Your task to perform on an android device: turn notification dots off Image 0: 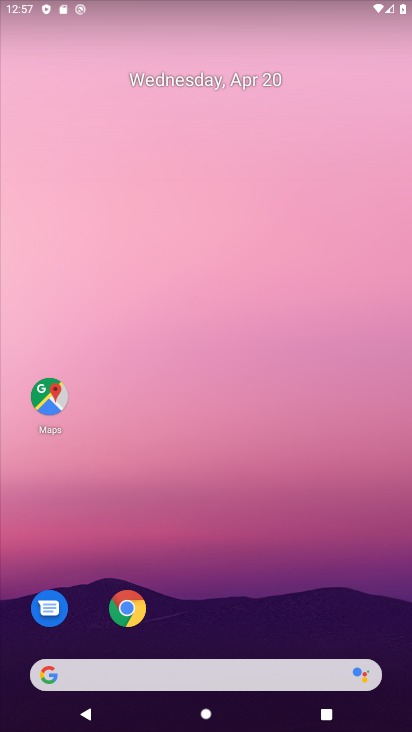
Step 0: drag from (363, 605) to (260, 227)
Your task to perform on an android device: turn notification dots off Image 1: 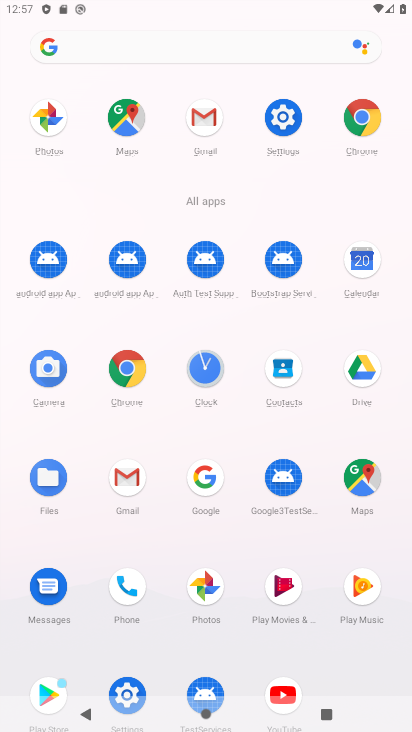
Step 1: click (280, 137)
Your task to perform on an android device: turn notification dots off Image 2: 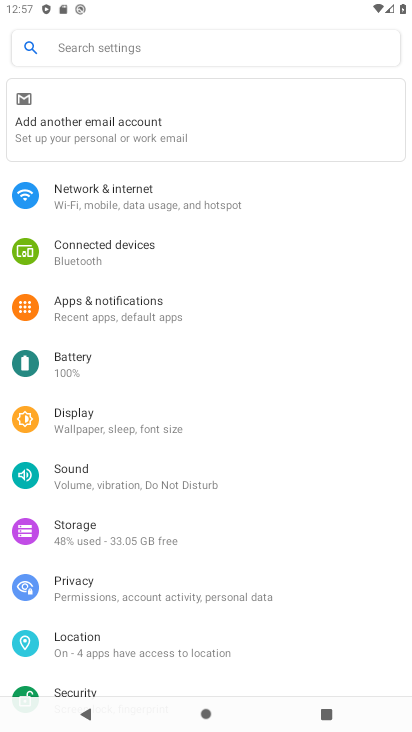
Step 2: click (217, 321)
Your task to perform on an android device: turn notification dots off Image 3: 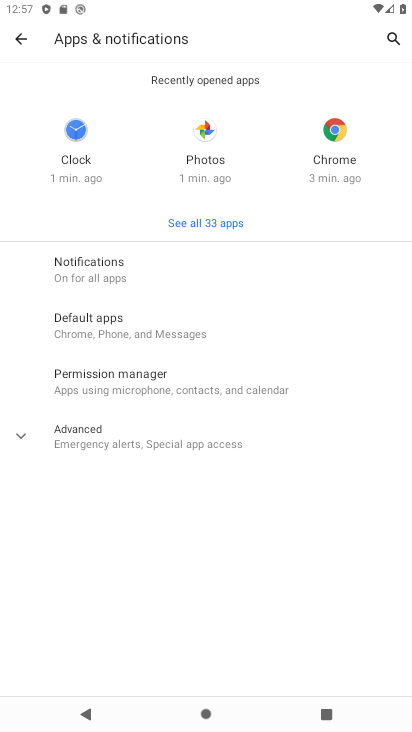
Step 3: click (201, 268)
Your task to perform on an android device: turn notification dots off Image 4: 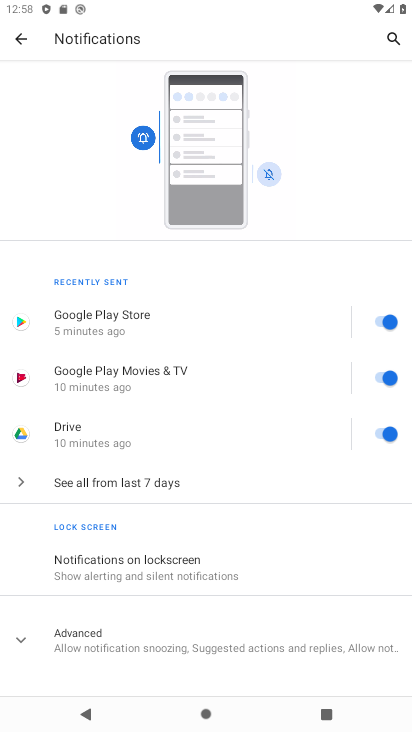
Step 4: drag from (228, 538) to (178, 349)
Your task to perform on an android device: turn notification dots off Image 5: 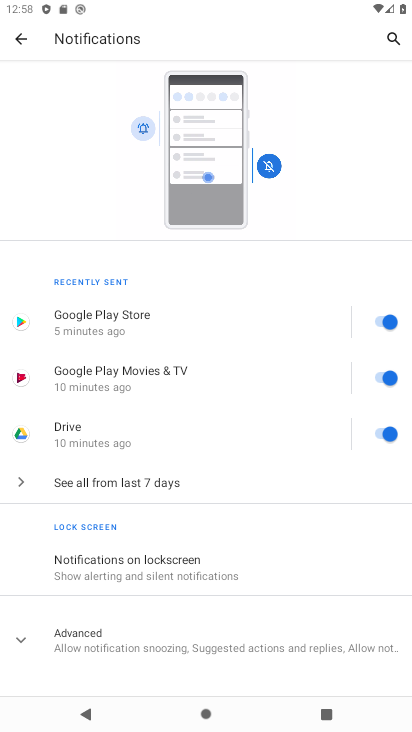
Step 5: click (226, 633)
Your task to perform on an android device: turn notification dots off Image 6: 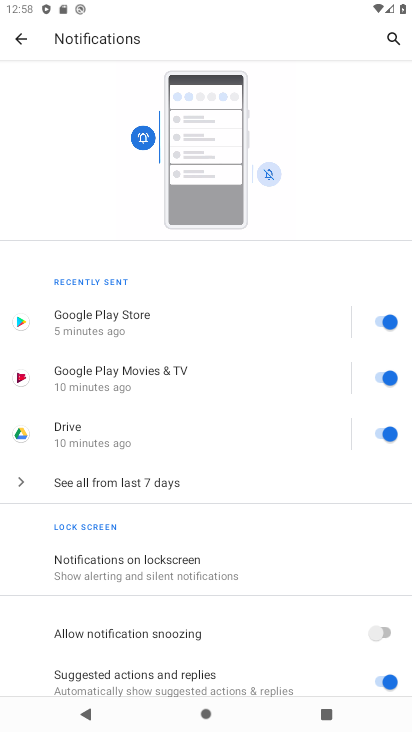
Step 6: drag from (226, 633) to (212, 292)
Your task to perform on an android device: turn notification dots off Image 7: 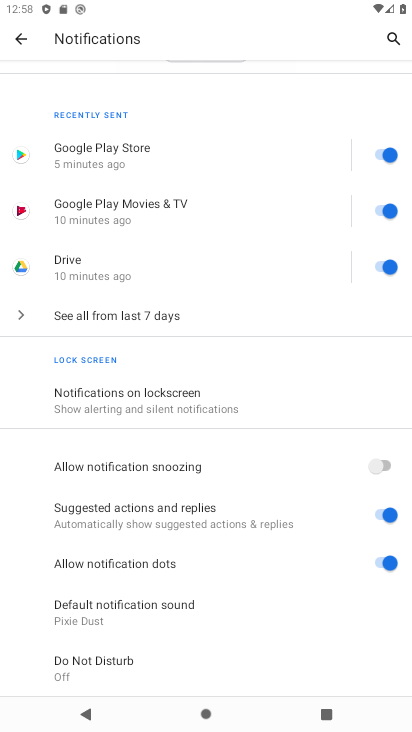
Step 7: click (392, 566)
Your task to perform on an android device: turn notification dots off Image 8: 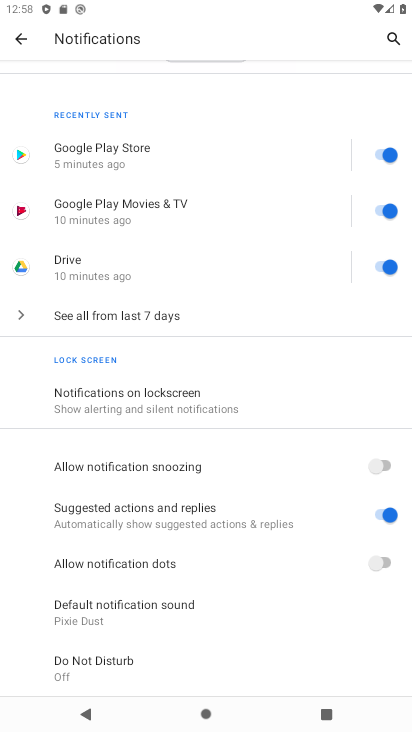
Step 8: task complete